Your task to perform on an android device: see sites visited before in the chrome app Image 0: 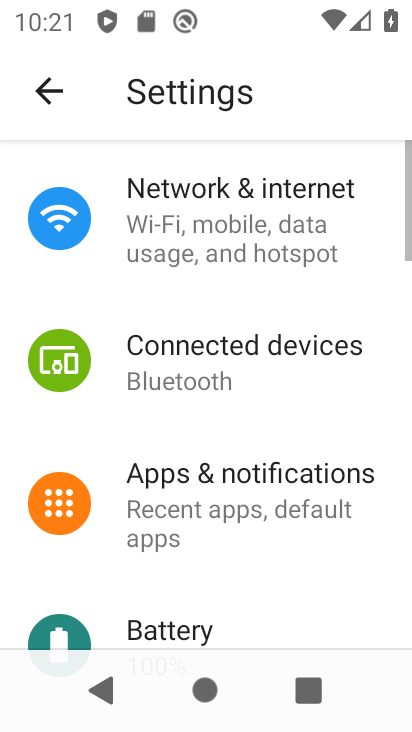
Step 0: press home button
Your task to perform on an android device: see sites visited before in the chrome app Image 1: 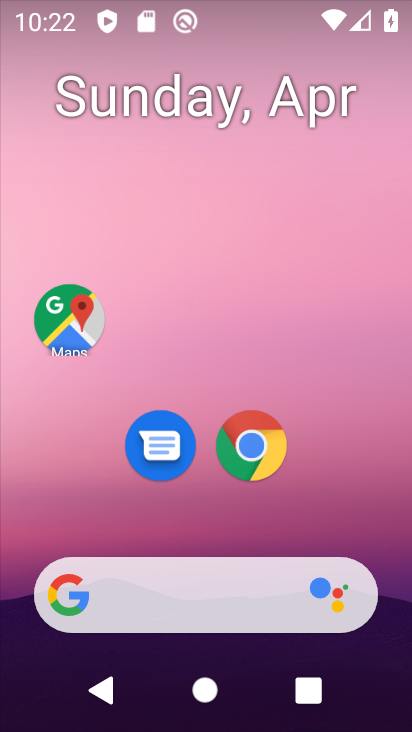
Step 1: drag from (183, 595) to (298, 140)
Your task to perform on an android device: see sites visited before in the chrome app Image 2: 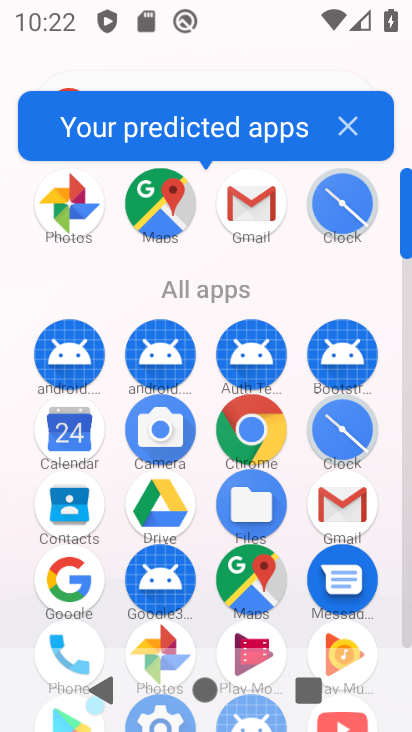
Step 2: click (257, 429)
Your task to perform on an android device: see sites visited before in the chrome app Image 3: 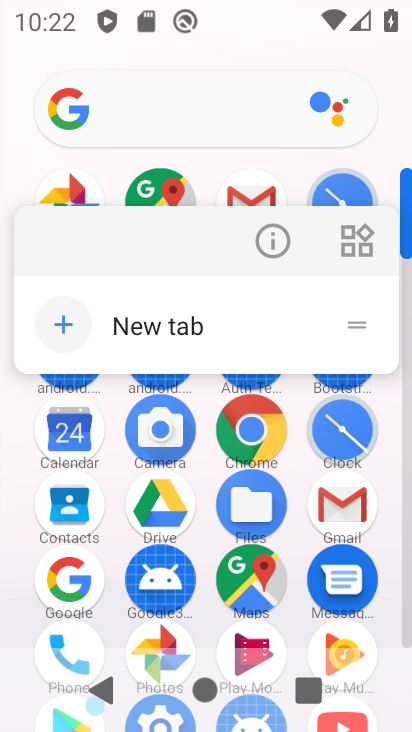
Step 3: click (250, 437)
Your task to perform on an android device: see sites visited before in the chrome app Image 4: 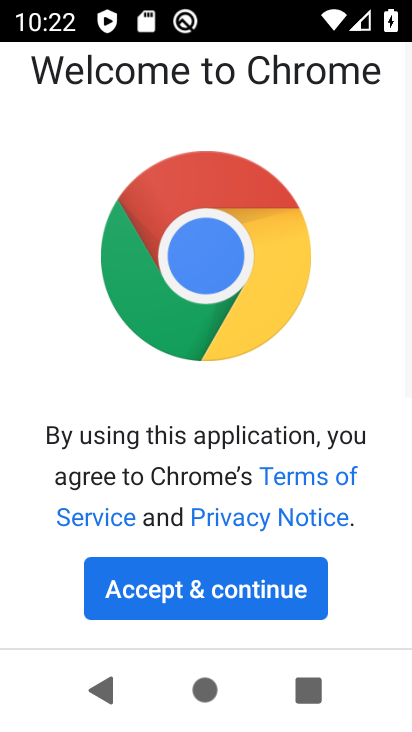
Step 4: click (248, 575)
Your task to perform on an android device: see sites visited before in the chrome app Image 5: 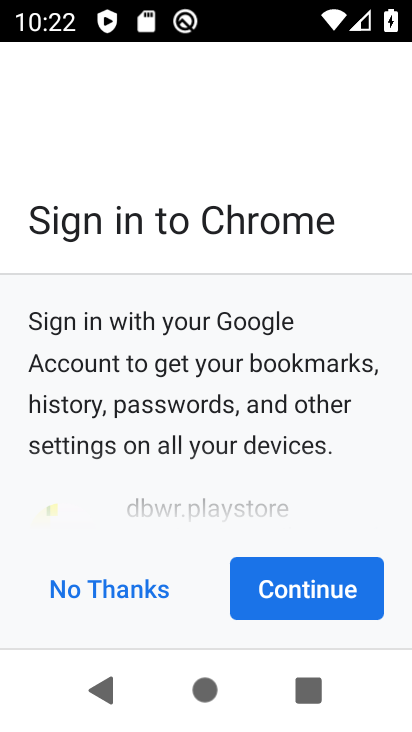
Step 5: click (305, 598)
Your task to perform on an android device: see sites visited before in the chrome app Image 6: 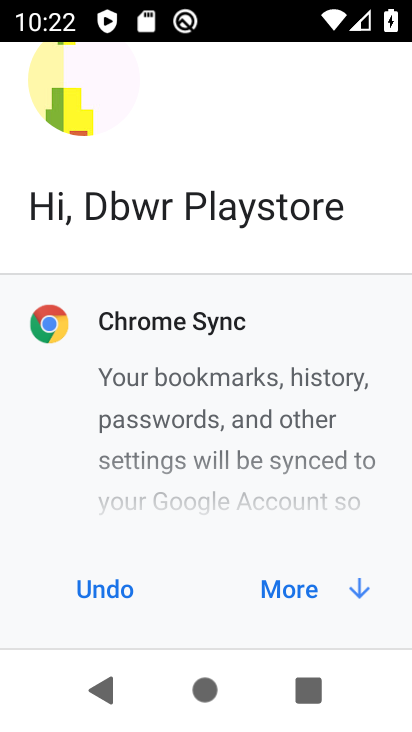
Step 6: click (305, 599)
Your task to perform on an android device: see sites visited before in the chrome app Image 7: 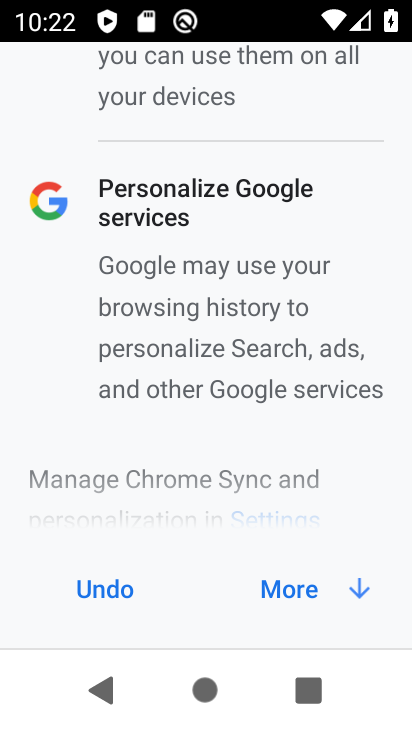
Step 7: click (302, 595)
Your task to perform on an android device: see sites visited before in the chrome app Image 8: 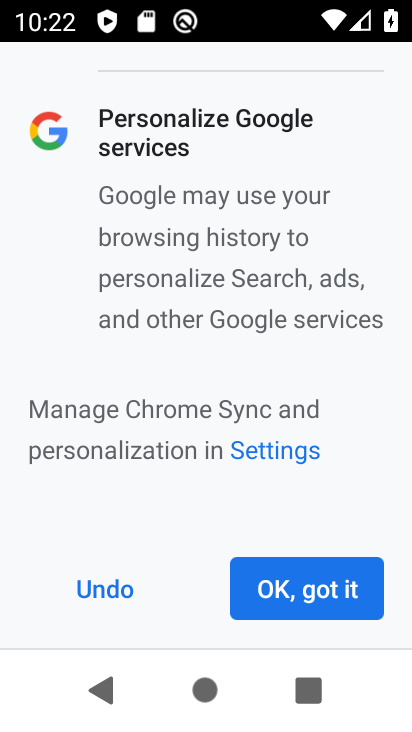
Step 8: click (303, 605)
Your task to perform on an android device: see sites visited before in the chrome app Image 9: 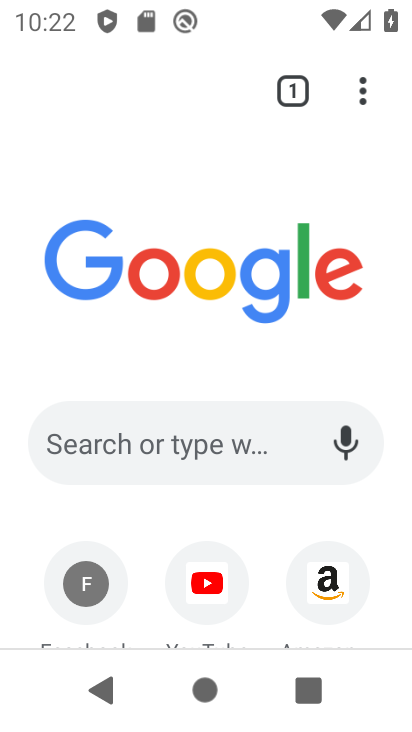
Step 9: drag from (364, 97) to (135, 435)
Your task to perform on an android device: see sites visited before in the chrome app Image 10: 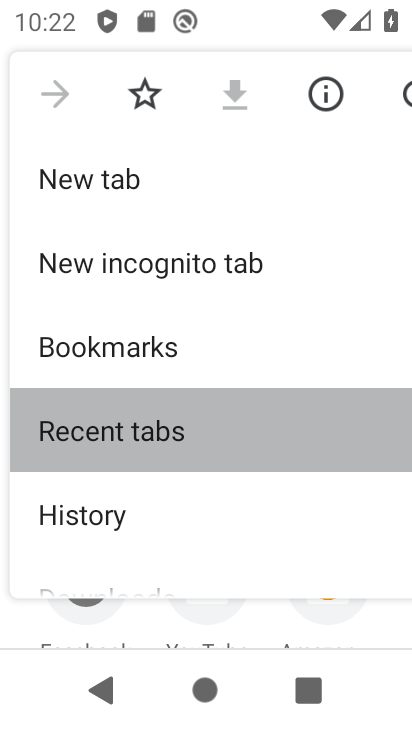
Step 10: click (135, 435)
Your task to perform on an android device: see sites visited before in the chrome app Image 11: 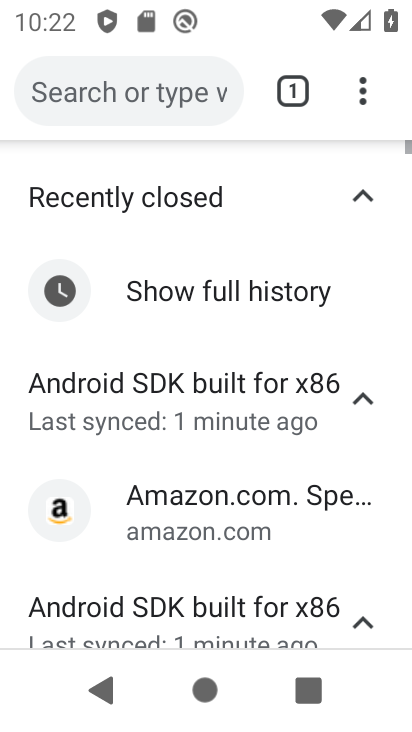
Step 11: task complete